Your task to perform on an android device: delete a single message in the gmail app Image 0: 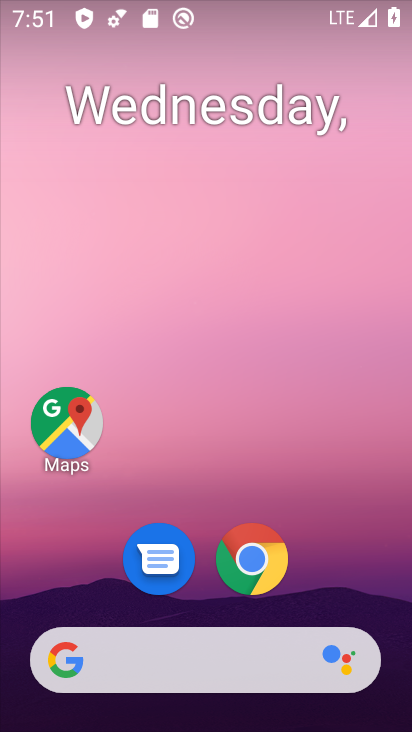
Step 0: drag from (221, 520) to (305, 94)
Your task to perform on an android device: delete a single message in the gmail app Image 1: 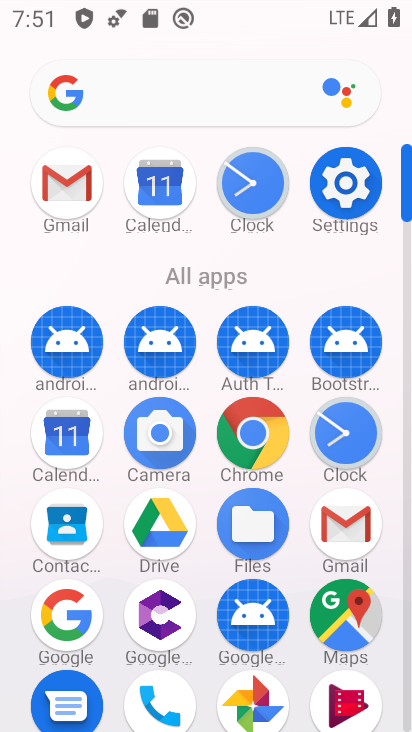
Step 1: click (356, 527)
Your task to perform on an android device: delete a single message in the gmail app Image 2: 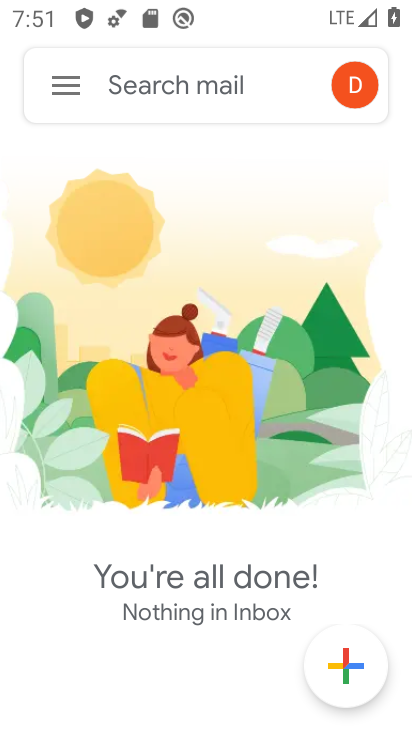
Step 2: click (56, 65)
Your task to perform on an android device: delete a single message in the gmail app Image 3: 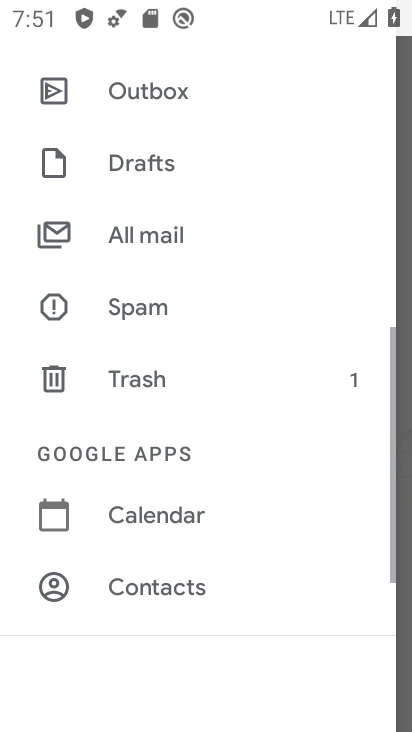
Step 3: click (141, 229)
Your task to perform on an android device: delete a single message in the gmail app Image 4: 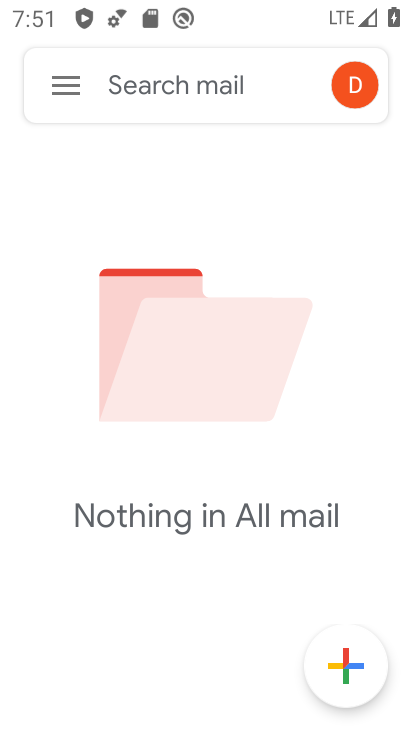
Step 4: task complete